Your task to perform on an android device: Do I have any events this weekend? Image 0: 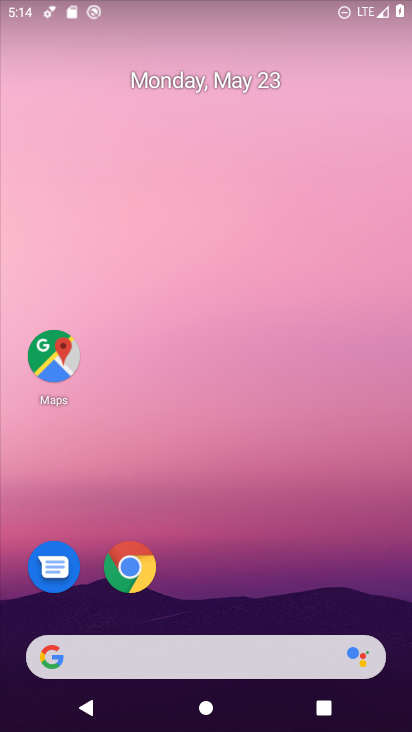
Step 0: drag from (218, 587) to (154, 139)
Your task to perform on an android device: Do I have any events this weekend? Image 1: 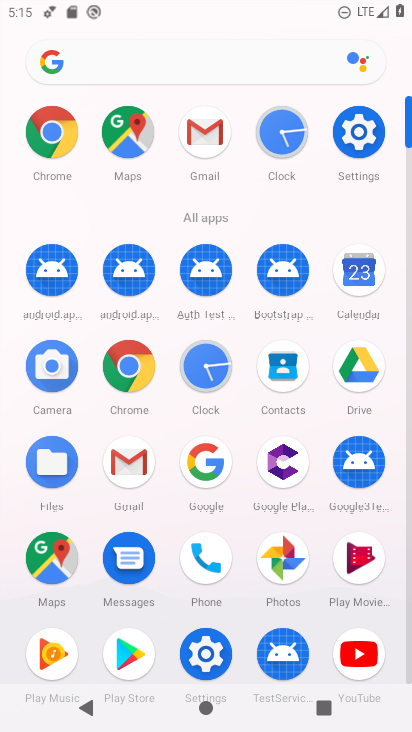
Step 1: click (363, 274)
Your task to perform on an android device: Do I have any events this weekend? Image 2: 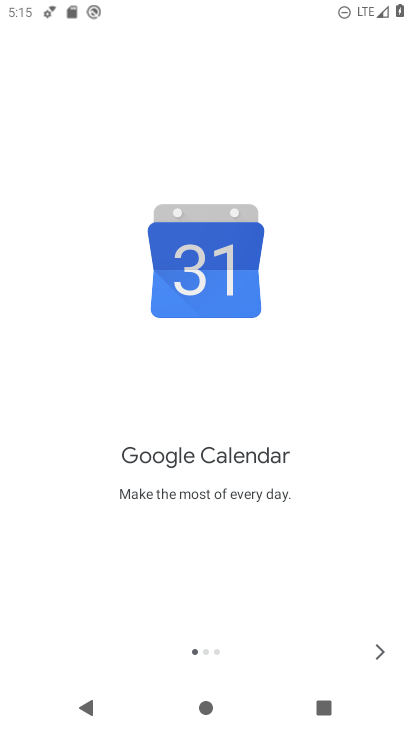
Step 2: click (380, 649)
Your task to perform on an android device: Do I have any events this weekend? Image 3: 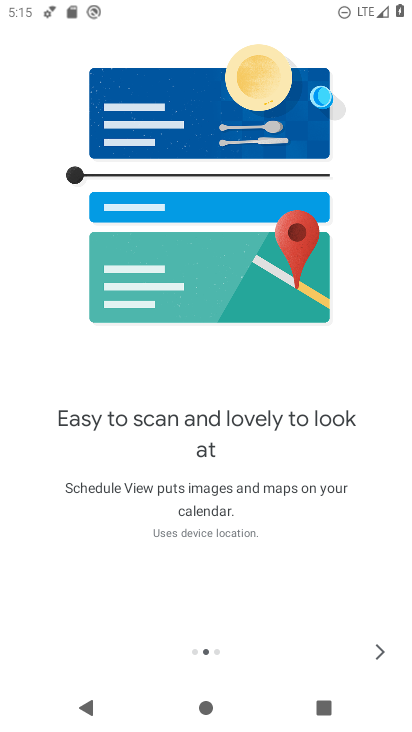
Step 3: click (380, 649)
Your task to perform on an android device: Do I have any events this weekend? Image 4: 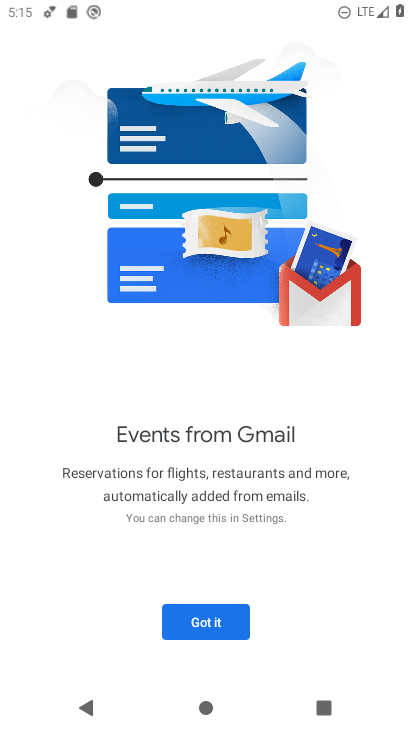
Step 4: click (200, 620)
Your task to perform on an android device: Do I have any events this weekend? Image 5: 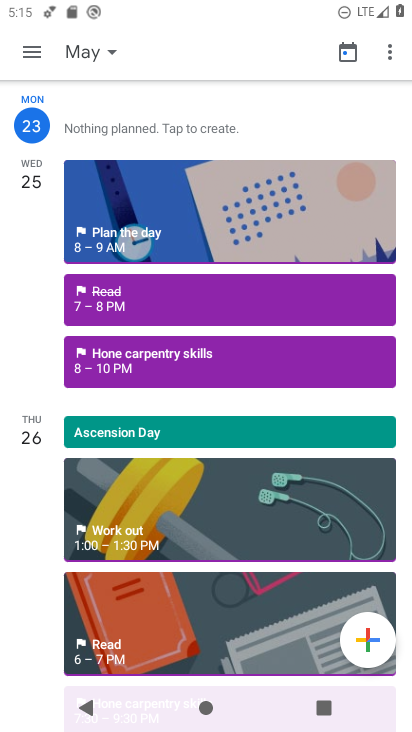
Step 5: click (108, 49)
Your task to perform on an android device: Do I have any events this weekend? Image 6: 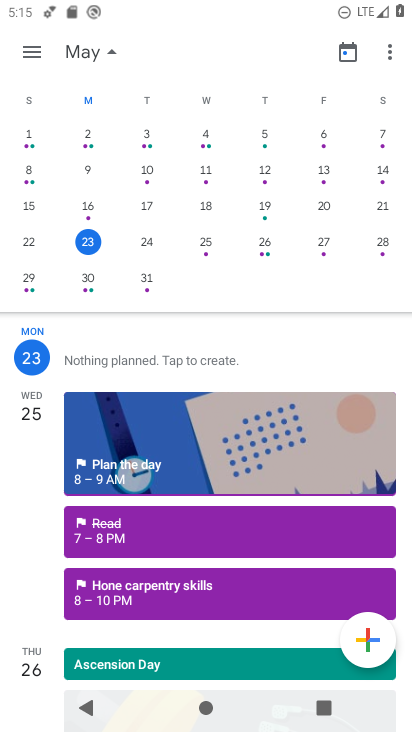
Step 6: click (377, 242)
Your task to perform on an android device: Do I have any events this weekend? Image 7: 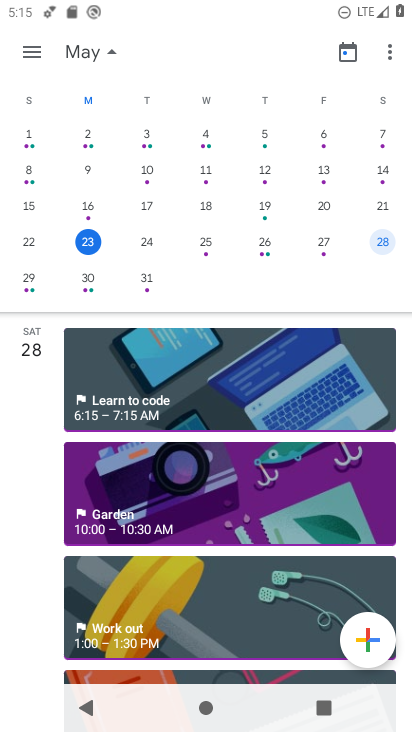
Step 7: click (30, 56)
Your task to perform on an android device: Do I have any events this weekend? Image 8: 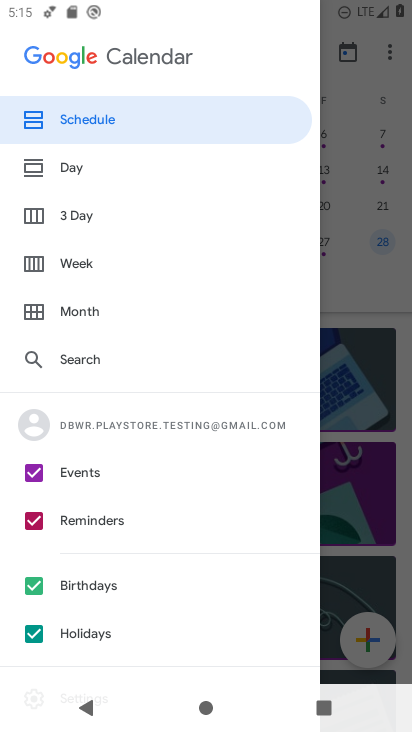
Step 8: click (92, 261)
Your task to perform on an android device: Do I have any events this weekend? Image 9: 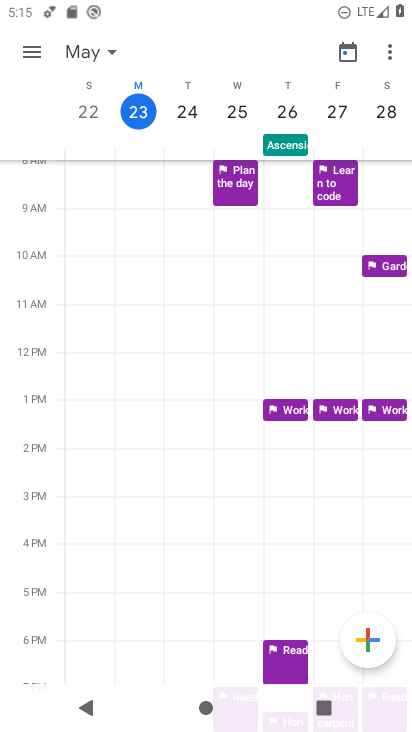
Step 9: task complete